Your task to perform on an android device: Show me popular games on the Play Store Image 0: 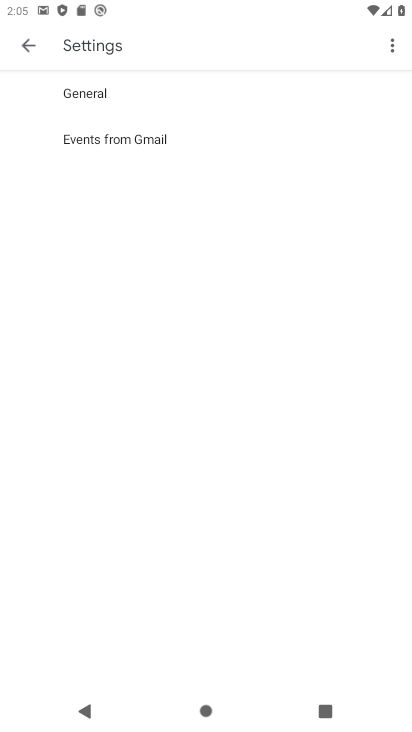
Step 0: press home button
Your task to perform on an android device: Show me popular games on the Play Store Image 1: 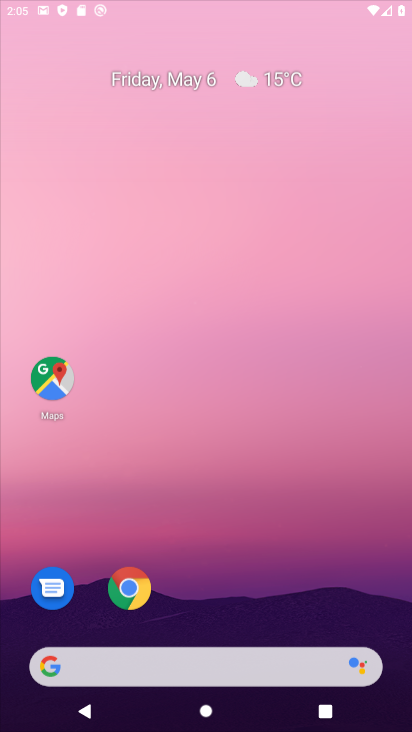
Step 1: click (0, 367)
Your task to perform on an android device: Show me popular games on the Play Store Image 2: 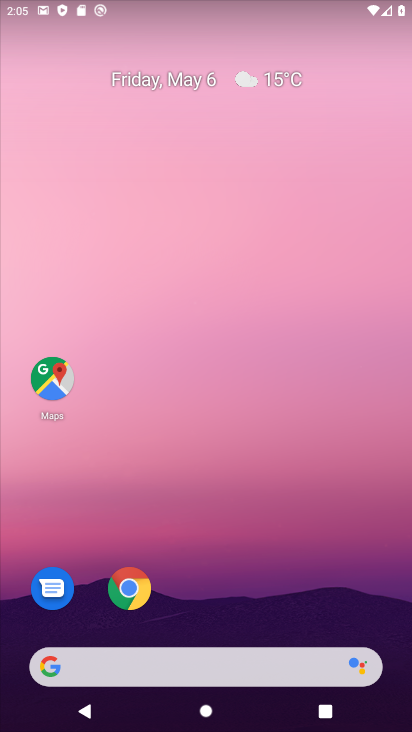
Step 2: drag from (210, 629) to (202, 28)
Your task to perform on an android device: Show me popular games on the Play Store Image 3: 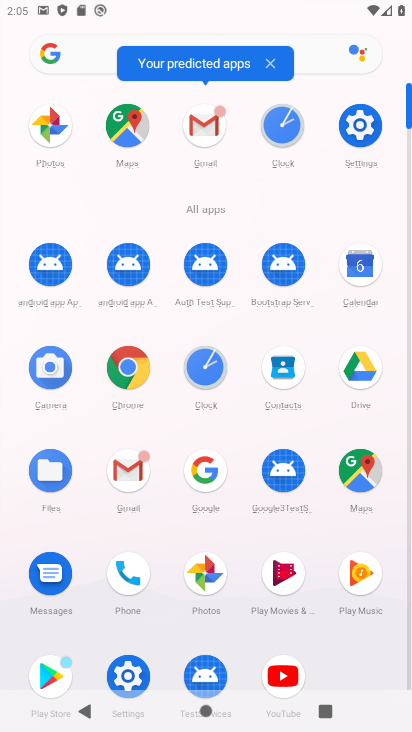
Step 3: click (38, 683)
Your task to perform on an android device: Show me popular games on the Play Store Image 4: 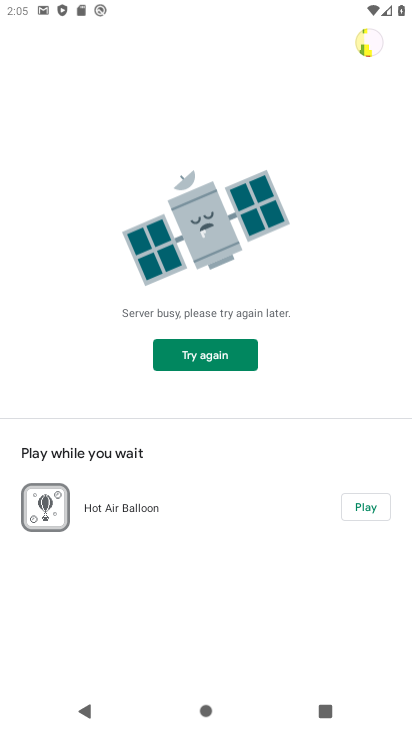
Step 4: task complete